Your task to perform on an android device: Open the web browser Image 0: 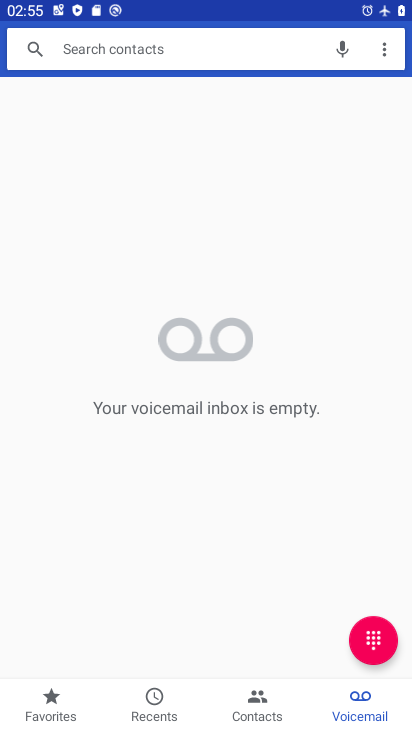
Step 0: press home button
Your task to perform on an android device: Open the web browser Image 1: 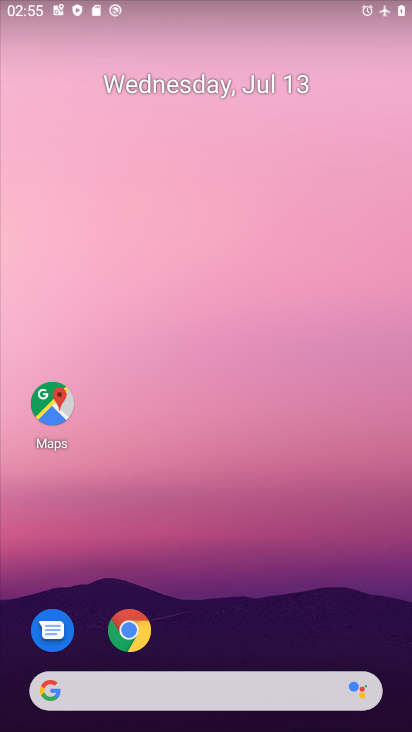
Step 1: click (139, 649)
Your task to perform on an android device: Open the web browser Image 2: 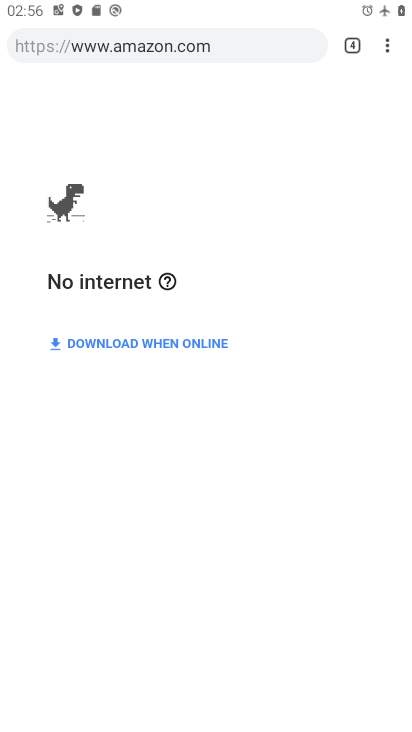
Step 2: task complete